Your task to perform on an android device: Go to Reddit.com Image 0: 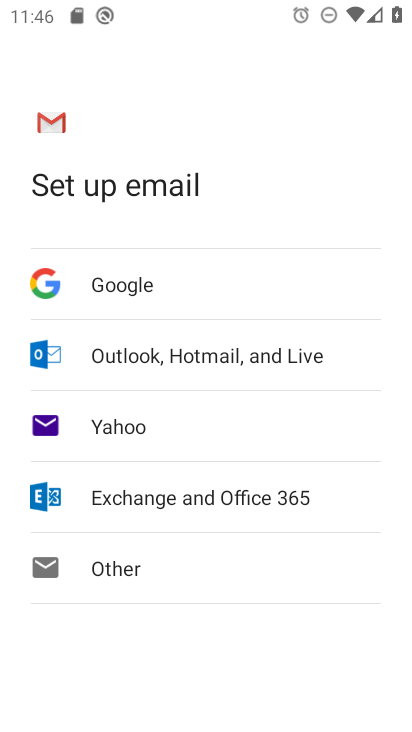
Step 0: press home button
Your task to perform on an android device: Go to Reddit.com Image 1: 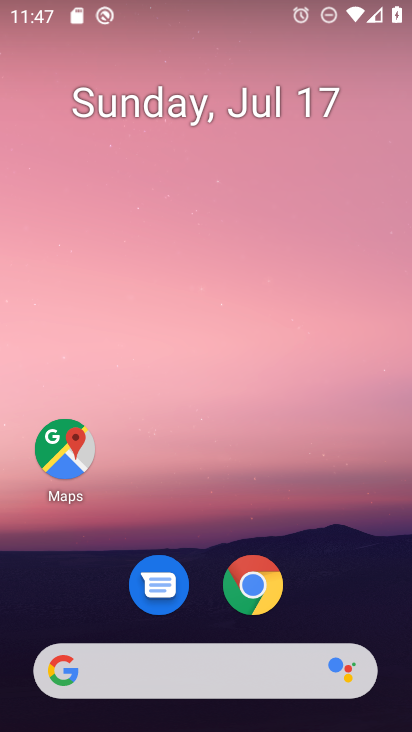
Step 1: click (243, 688)
Your task to perform on an android device: Go to Reddit.com Image 2: 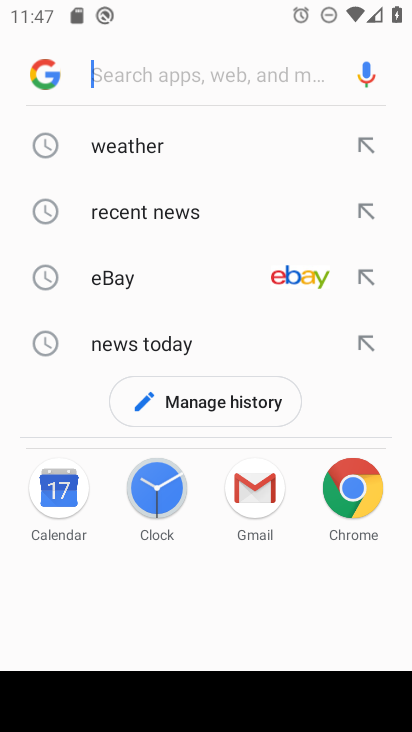
Step 2: type "reddit.com"
Your task to perform on an android device: Go to Reddit.com Image 3: 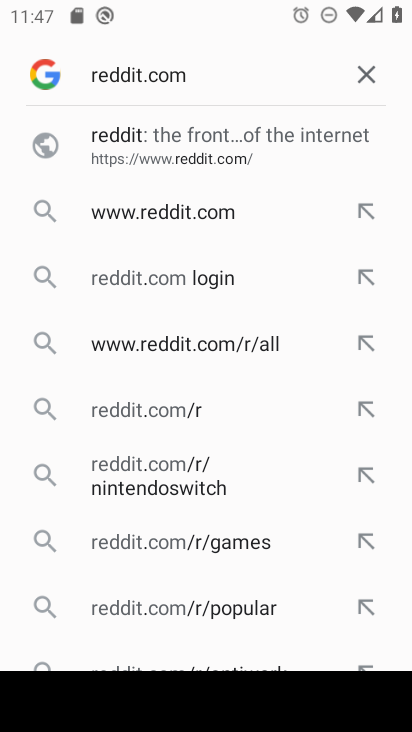
Step 3: click (164, 152)
Your task to perform on an android device: Go to Reddit.com Image 4: 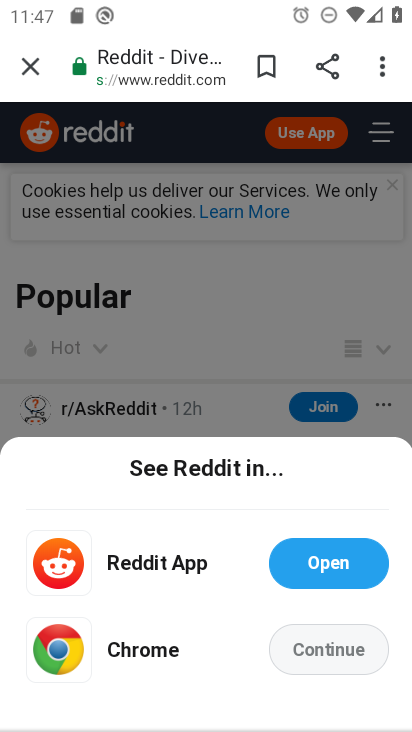
Step 4: click (359, 652)
Your task to perform on an android device: Go to Reddit.com Image 5: 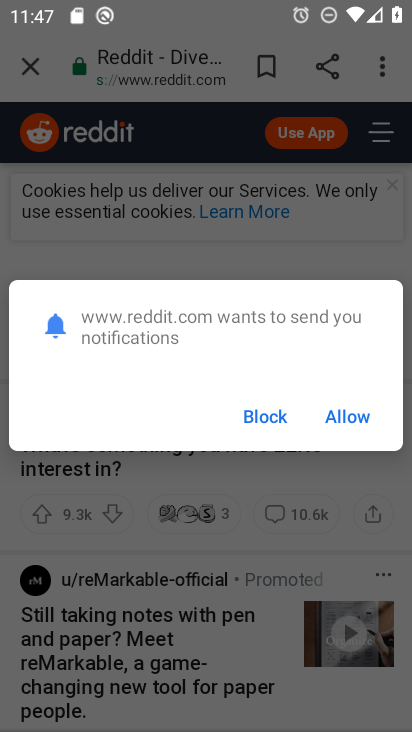
Step 5: click (277, 413)
Your task to perform on an android device: Go to Reddit.com Image 6: 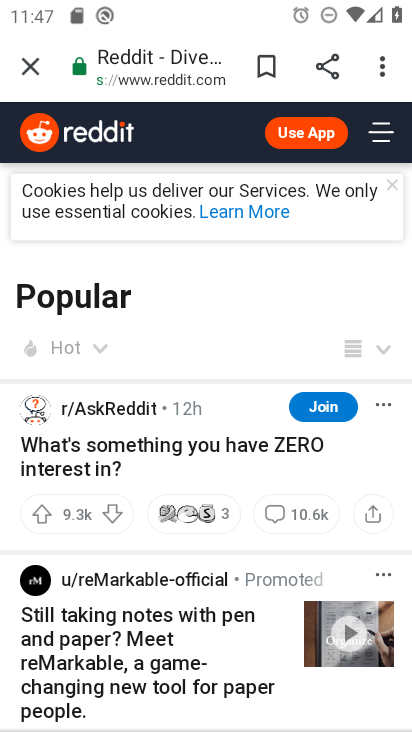
Step 6: task complete